Your task to perform on an android device: check storage Image 0: 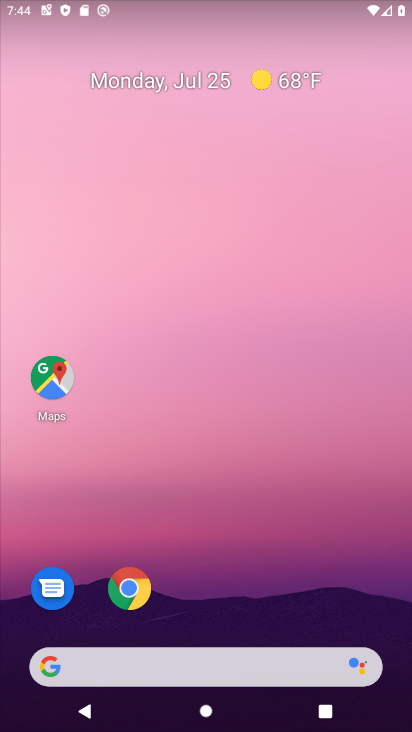
Step 0: press home button
Your task to perform on an android device: check storage Image 1: 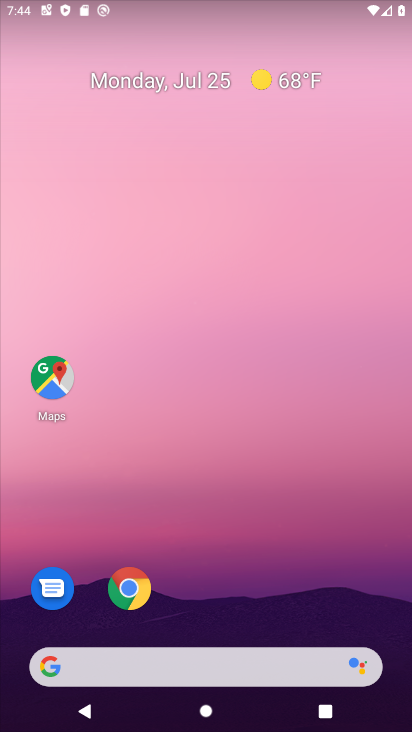
Step 1: drag from (316, 596) to (320, 208)
Your task to perform on an android device: check storage Image 2: 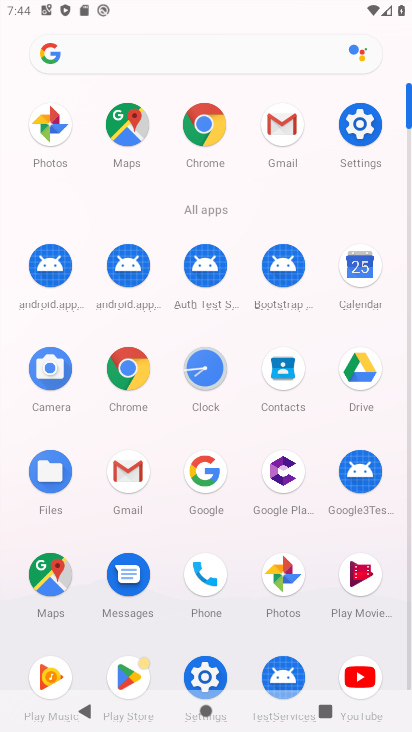
Step 2: click (366, 131)
Your task to perform on an android device: check storage Image 3: 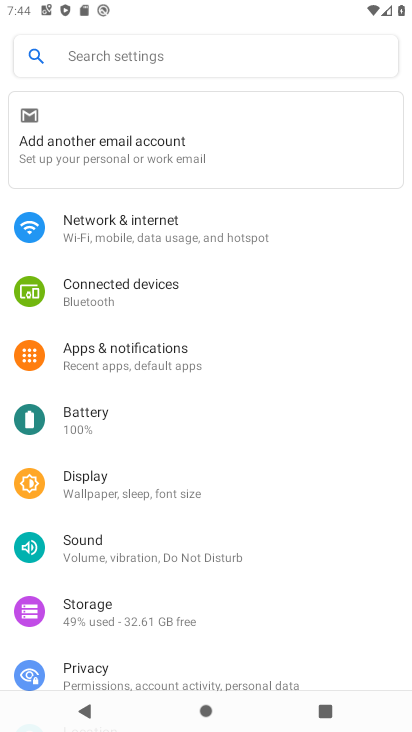
Step 3: drag from (367, 304) to (360, 252)
Your task to perform on an android device: check storage Image 4: 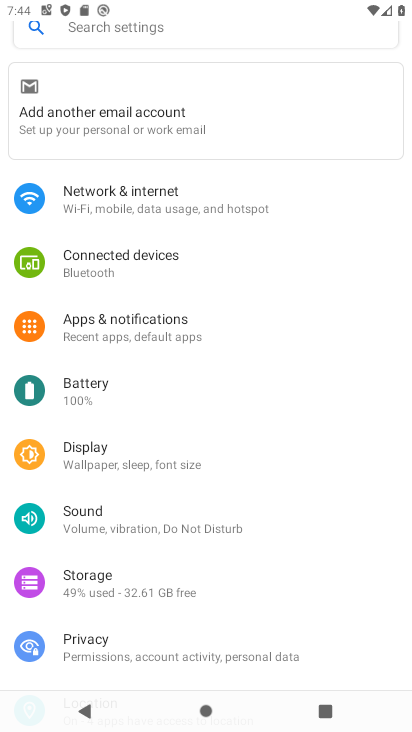
Step 4: drag from (344, 356) to (343, 284)
Your task to perform on an android device: check storage Image 5: 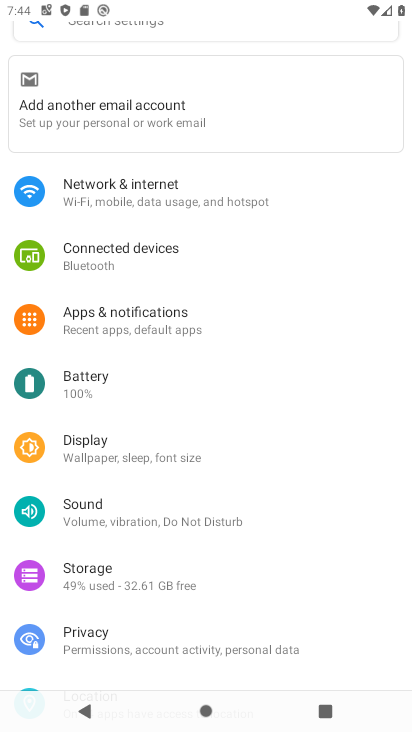
Step 5: drag from (349, 391) to (351, 324)
Your task to perform on an android device: check storage Image 6: 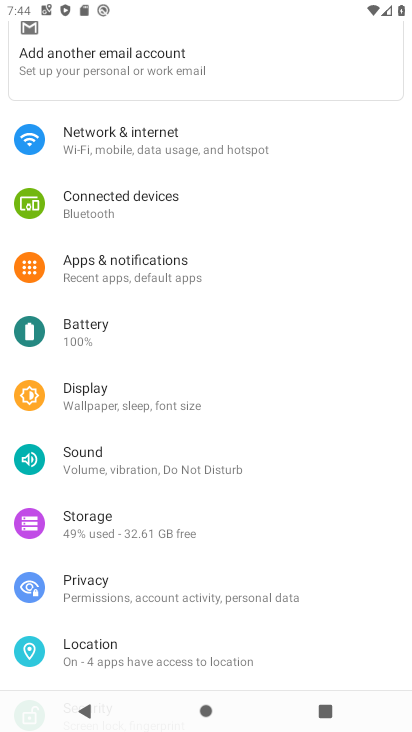
Step 6: drag from (352, 404) to (354, 347)
Your task to perform on an android device: check storage Image 7: 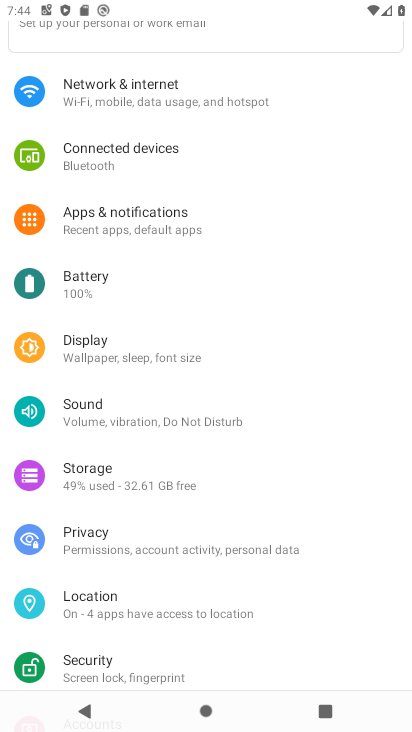
Step 7: drag from (352, 404) to (350, 333)
Your task to perform on an android device: check storage Image 8: 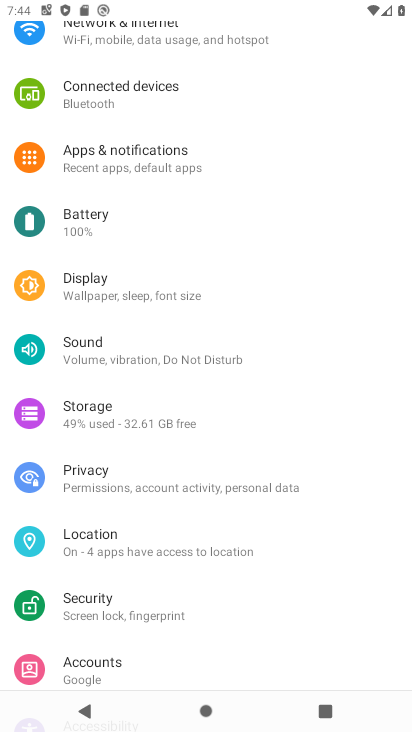
Step 8: drag from (349, 421) to (342, 316)
Your task to perform on an android device: check storage Image 9: 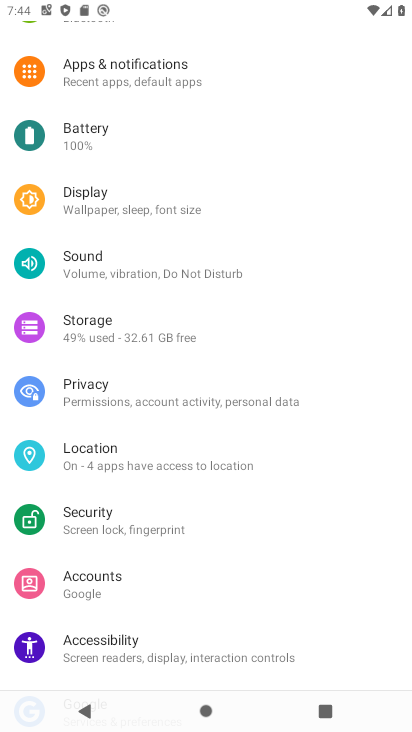
Step 9: drag from (330, 440) to (346, 293)
Your task to perform on an android device: check storage Image 10: 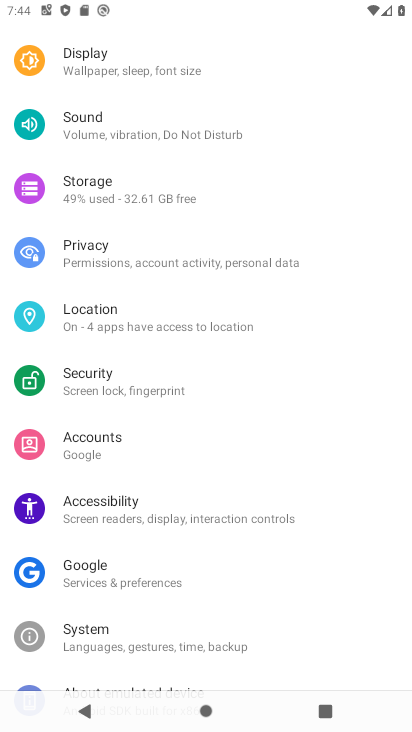
Step 10: drag from (346, 406) to (339, 249)
Your task to perform on an android device: check storage Image 11: 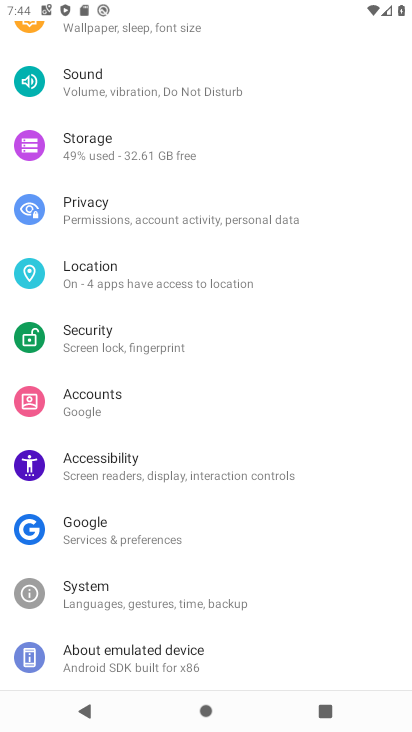
Step 11: click (206, 145)
Your task to perform on an android device: check storage Image 12: 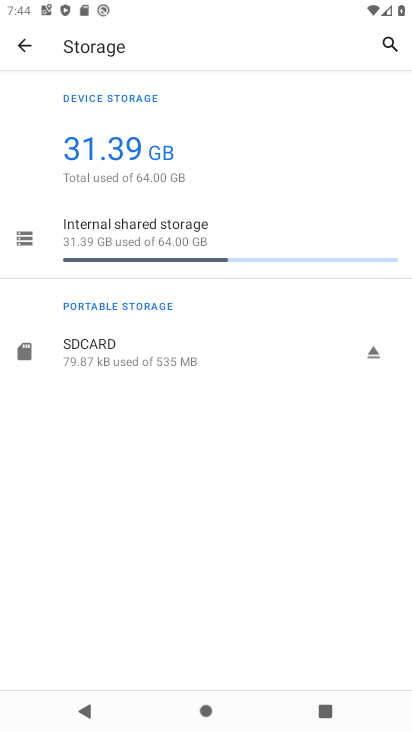
Step 12: task complete